Your task to perform on an android device: Open settings on Google Maps Image 0: 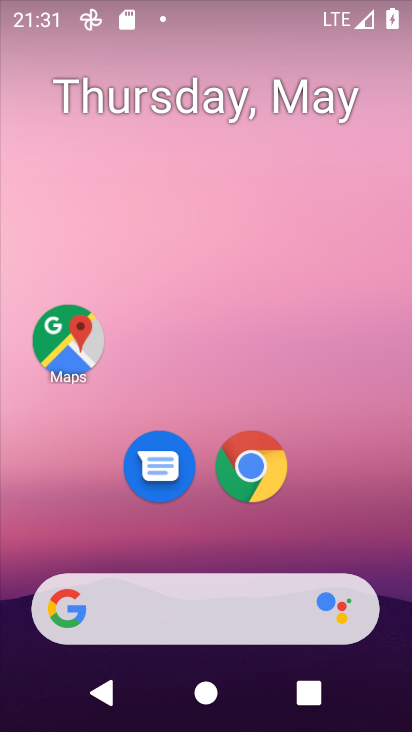
Step 0: drag from (367, 502) to (326, 198)
Your task to perform on an android device: Open settings on Google Maps Image 1: 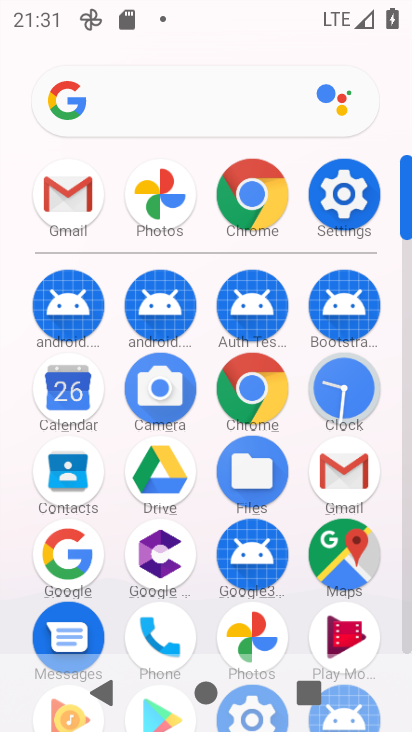
Step 1: click (344, 554)
Your task to perform on an android device: Open settings on Google Maps Image 2: 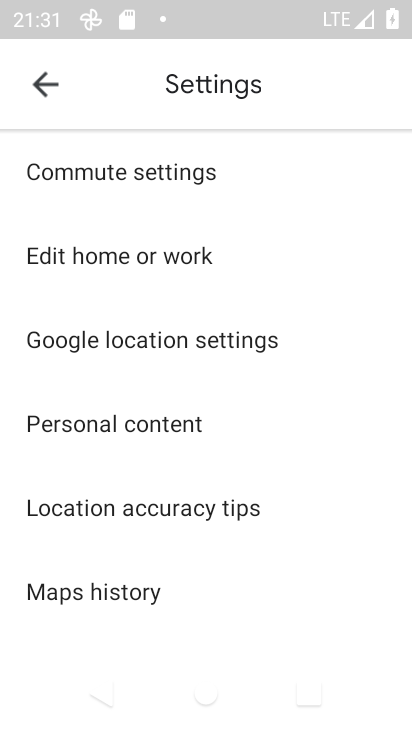
Step 2: task complete